Your task to perform on an android device: open sync settings in chrome Image 0: 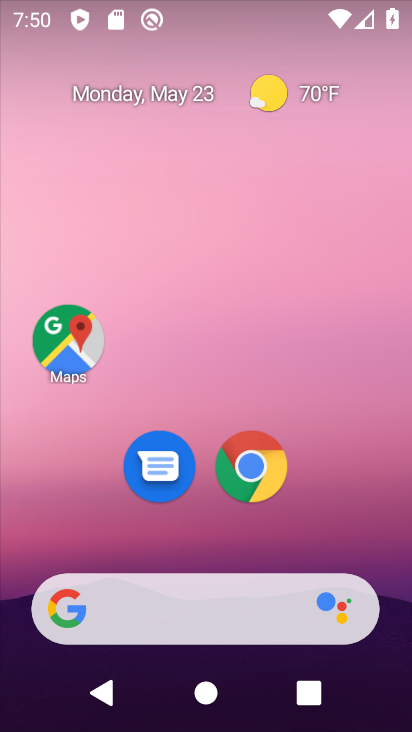
Step 0: click (258, 488)
Your task to perform on an android device: open sync settings in chrome Image 1: 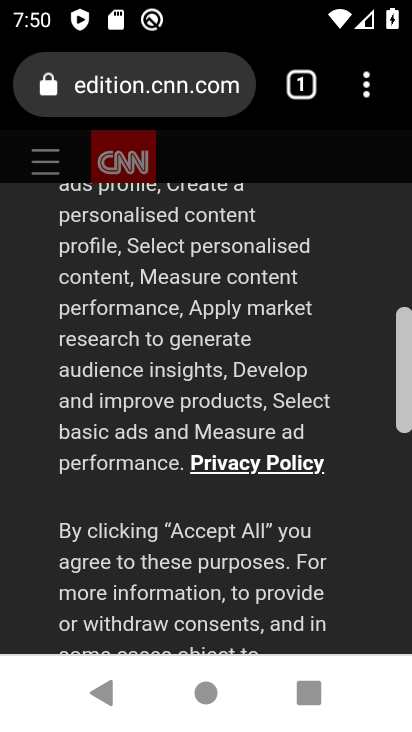
Step 1: click (375, 84)
Your task to perform on an android device: open sync settings in chrome Image 2: 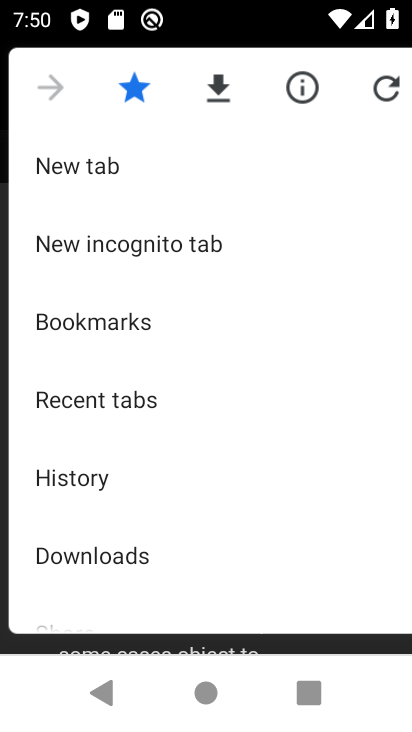
Step 2: drag from (124, 508) to (173, 94)
Your task to perform on an android device: open sync settings in chrome Image 3: 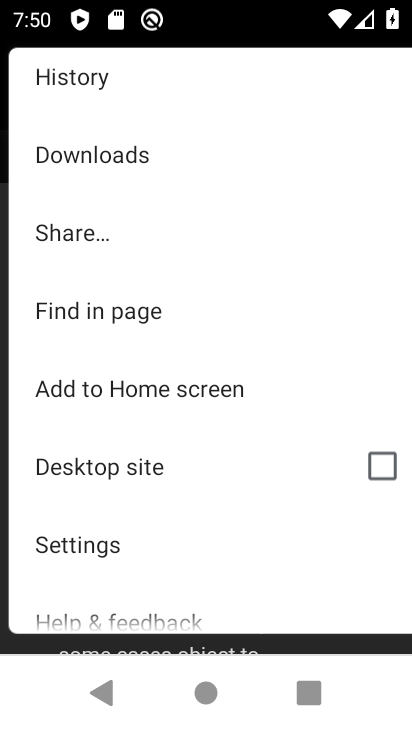
Step 3: click (166, 546)
Your task to perform on an android device: open sync settings in chrome Image 4: 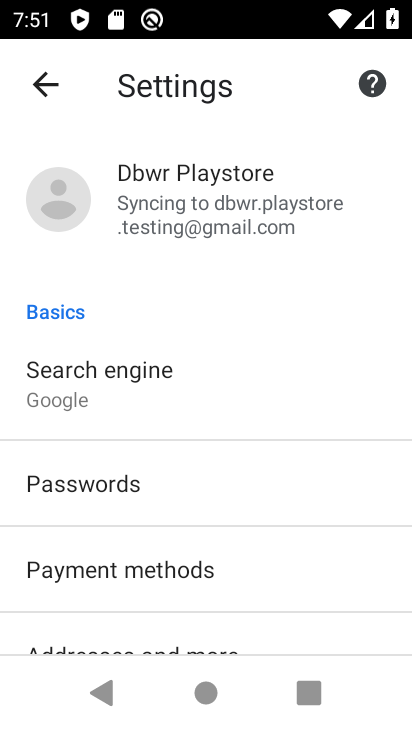
Step 4: click (214, 208)
Your task to perform on an android device: open sync settings in chrome Image 5: 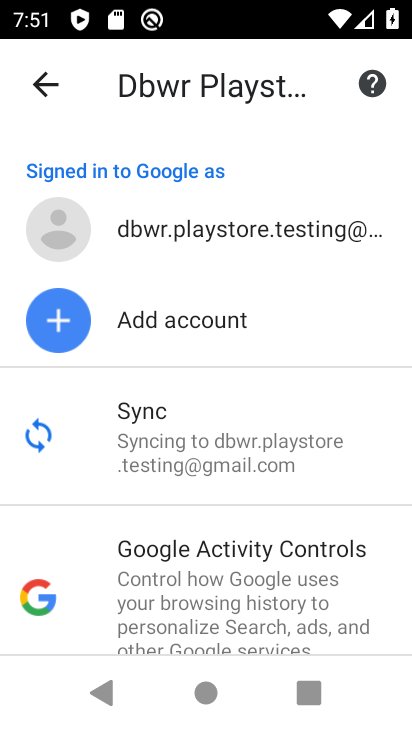
Step 5: click (234, 425)
Your task to perform on an android device: open sync settings in chrome Image 6: 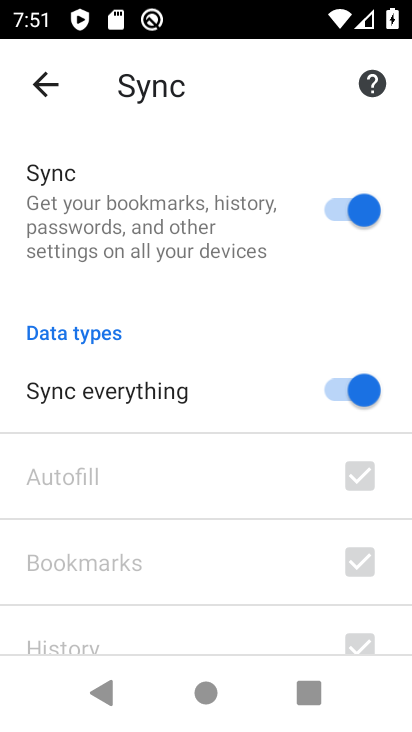
Step 6: task complete